Your task to perform on an android device: Go to Wikipedia Image 0: 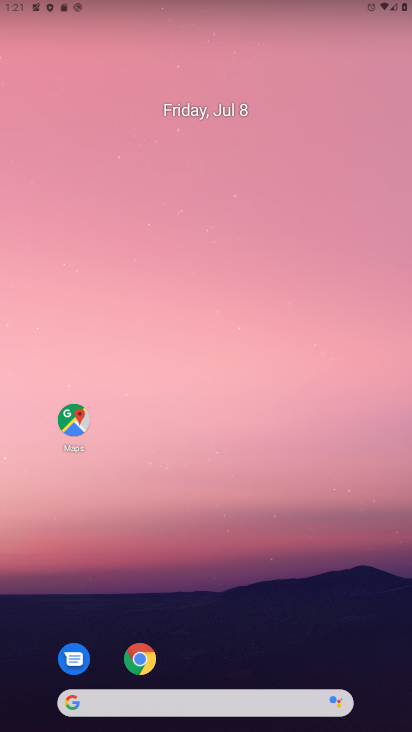
Step 0: click (137, 664)
Your task to perform on an android device: Go to Wikipedia Image 1: 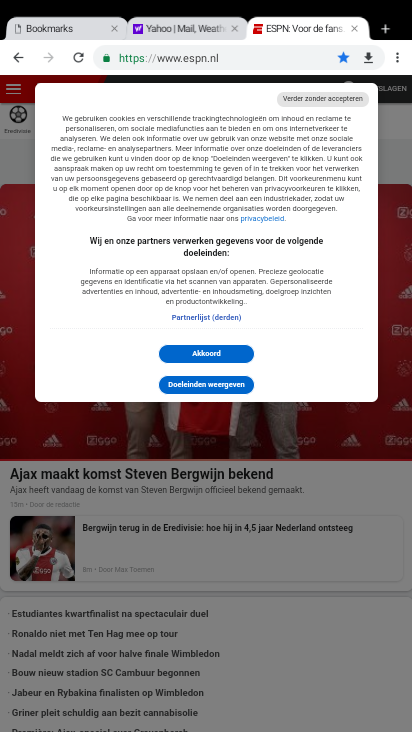
Step 1: click (223, 356)
Your task to perform on an android device: Go to Wikipedia Image 2: 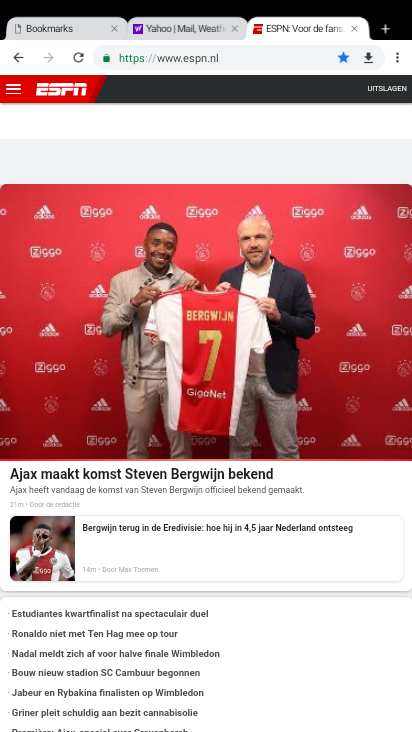
Step 2: click (397, 56)
Your task to perform on an android device: Go to Wikipedia Image 3: 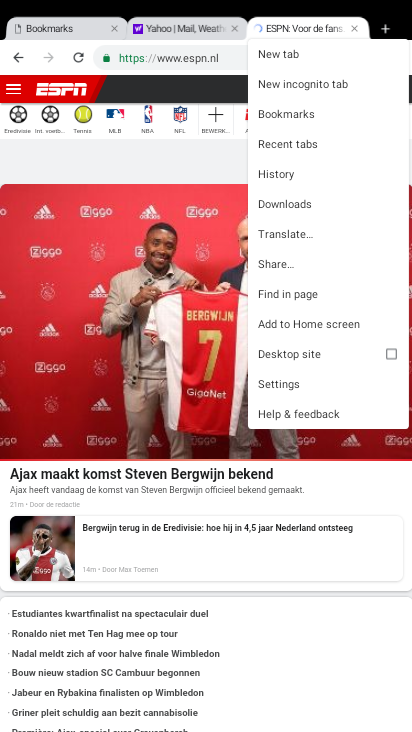
Step 3: click (292, 48)
Your task to perform on an android device: Go to Wikipedia Image 4: 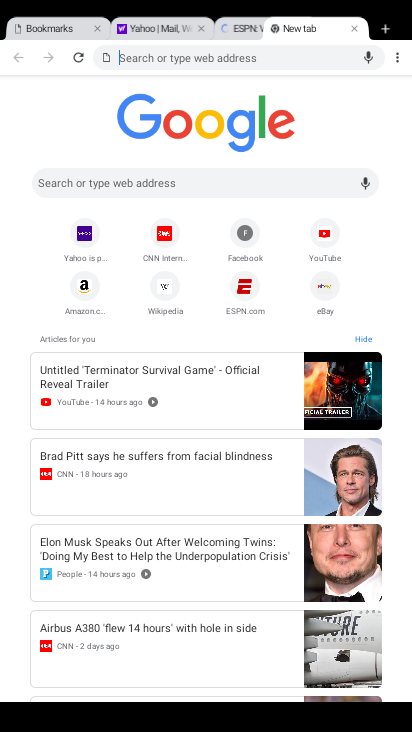
Step 4: click (164, 286)
Your task to perform on an android device: Go to Wikipedia Image 5: 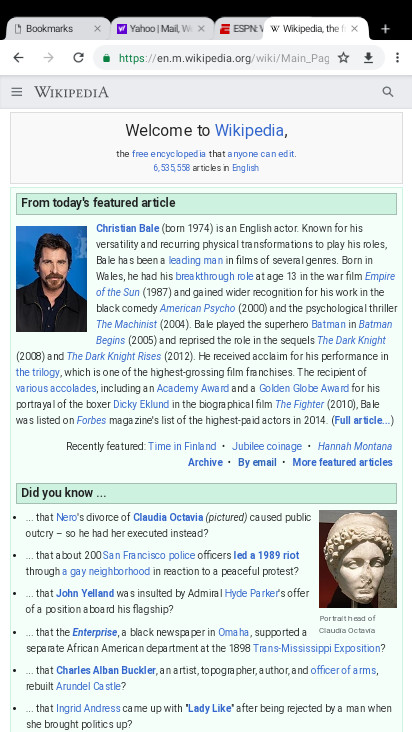
Step 5: task complete